Your task to perform on an android device: Open ESPN.com Image 0: 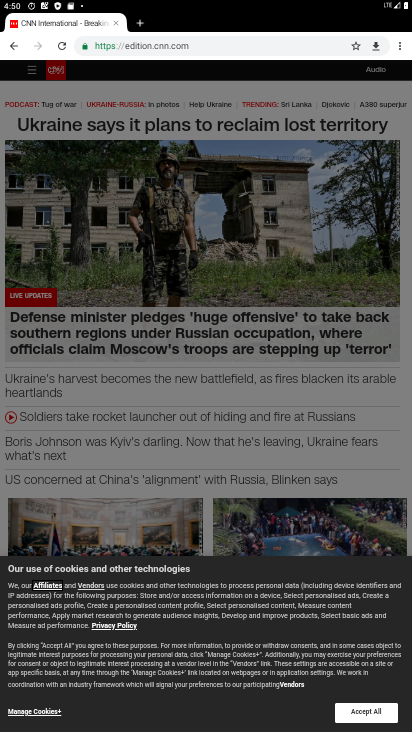
Step 0: press home button
Your task to perform on an android device: Open ESPN.com Image 1: 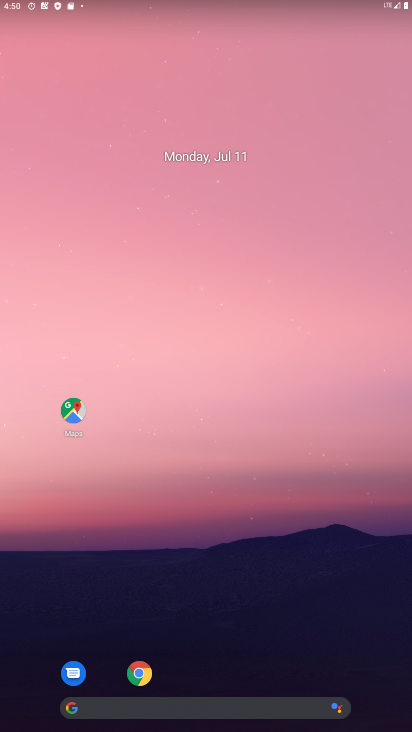
Step 1: click (139, 674)
Your task to perform on an android device: Open ESPN.com Image 2: 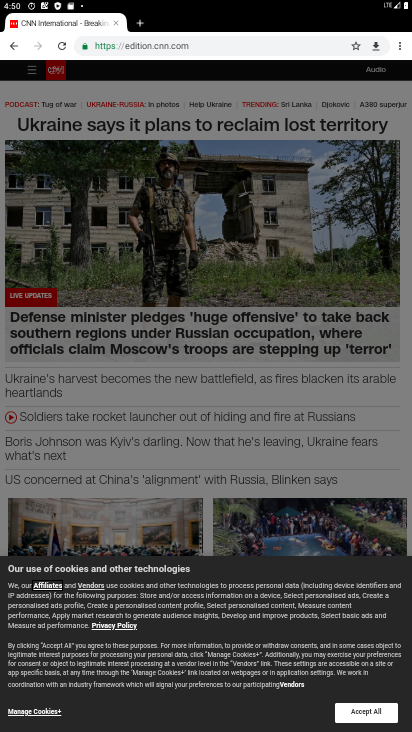
Step 2: click (299, 50)
Your task to perform on an android device: Open ESPN.com Image 3: 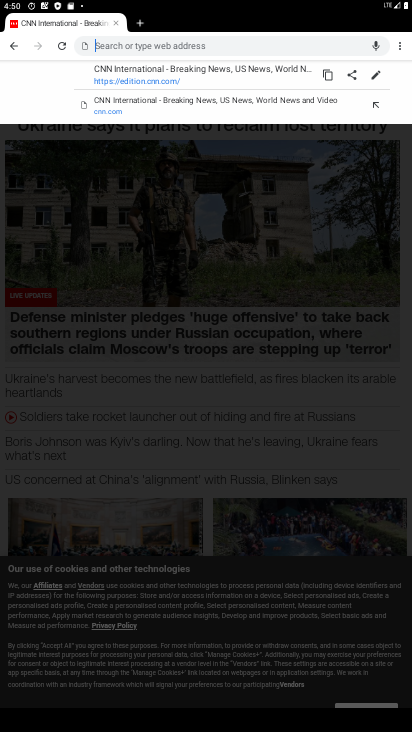
Step 3: type "ESPN.com"
Your task to perform on an android device: Open ESPN.com Image 4: 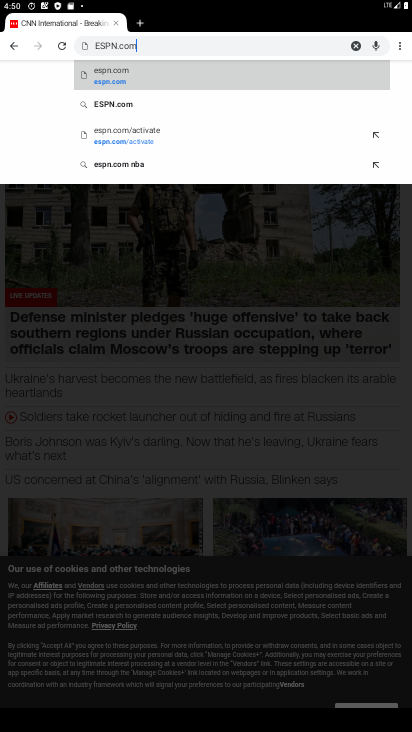
Step 4: click (129, 110)
Your task to perform on an android device: Open ESPN.com Image 5: 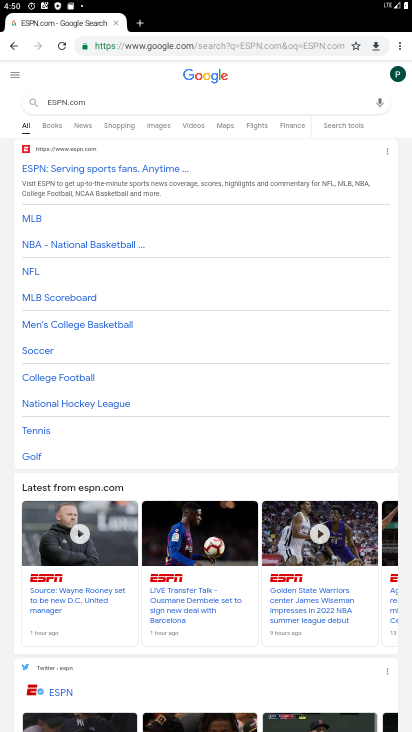
Step 5: click (111, 170)
Your task to perform on an android device: Open ESPN.com Image 6: 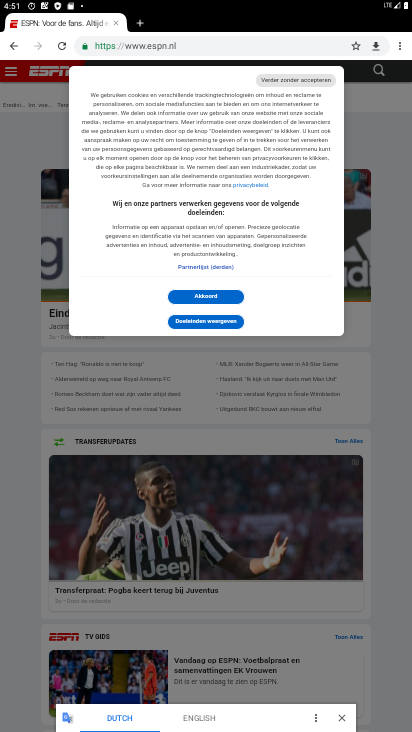
Step 6: task complete